Your task to perform on an android device: turn on javascript in the chrome app Image 0: 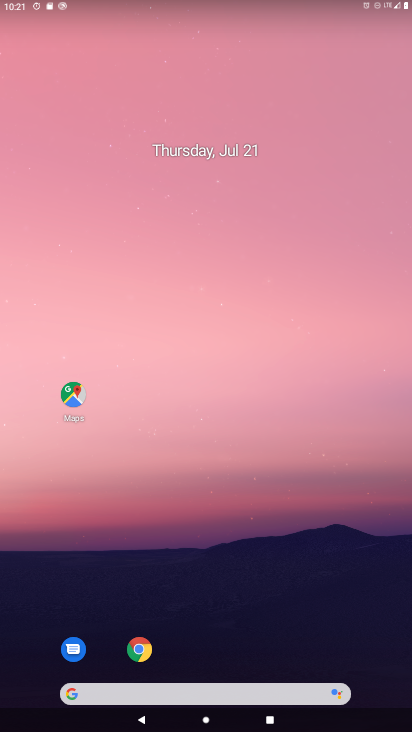
Step 0: drag from (350, 582) to (254, 19)
Your task to perform on an android device: turn on javascript in the chrome app Image 1: 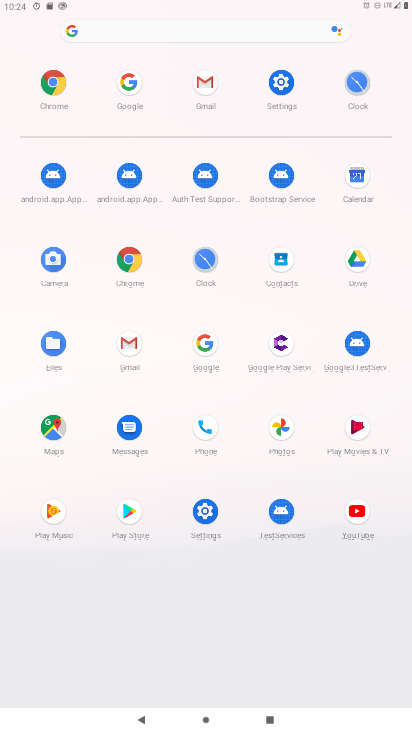
Step 1: click (133, 260)
Your task to perform on an android device: turn on javascript in the chrome app Image 2: 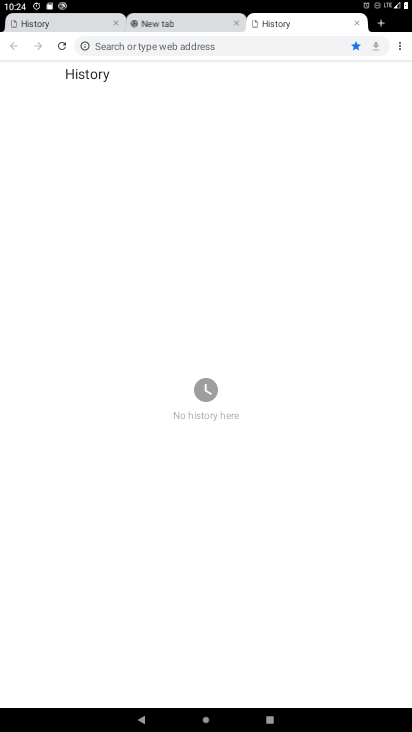
Step 2: click (396, 43)
Your task to perform on an android device: turn on javascript in the chrome app Image 3: 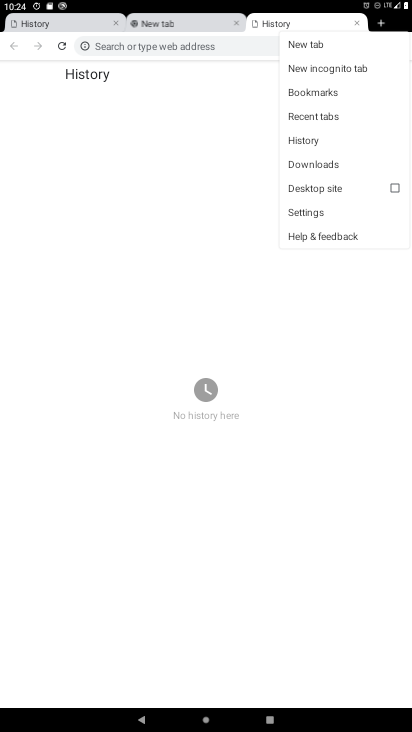
Step 3: click (318, 215)
Your task to perform on an android device: turn on javascript in the chrome app Image 4: 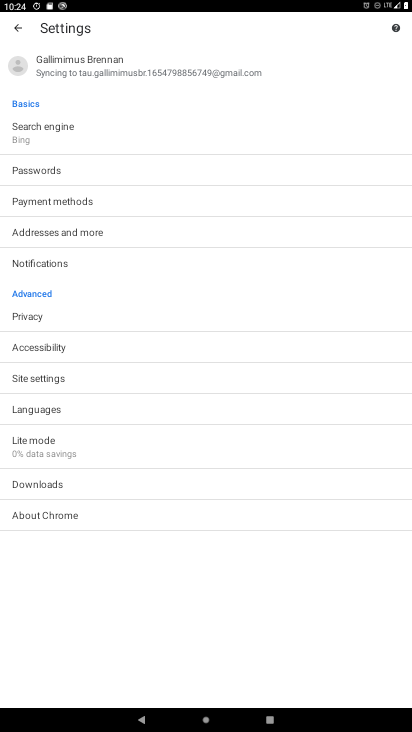
Step 4: click (54, 380)
Your task to perform on an android device: turn on javascript in the chrome app Image 5: 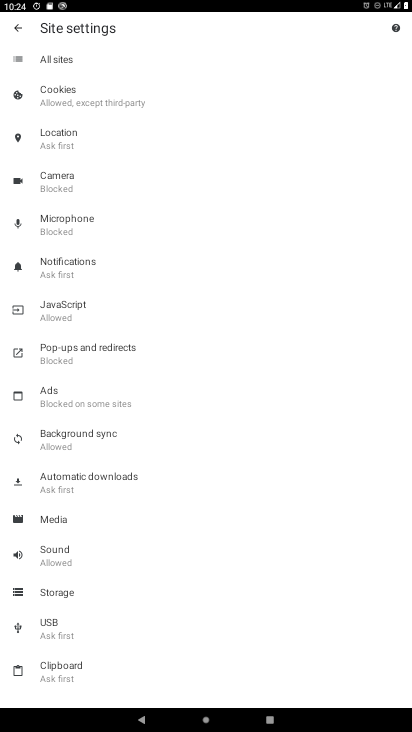
Step 5: click (86, 311)
Your task to perform on an android device: turn on javascript in the chrome app Image 6: 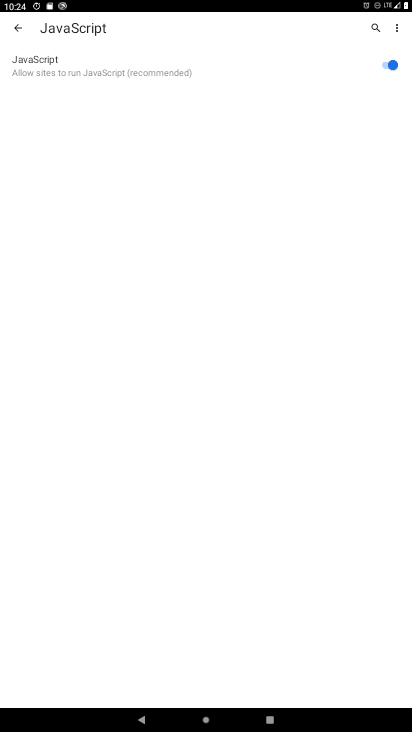
Step 6: task complete